Your task to perform on an android device: Open the stopwatch Image 0: 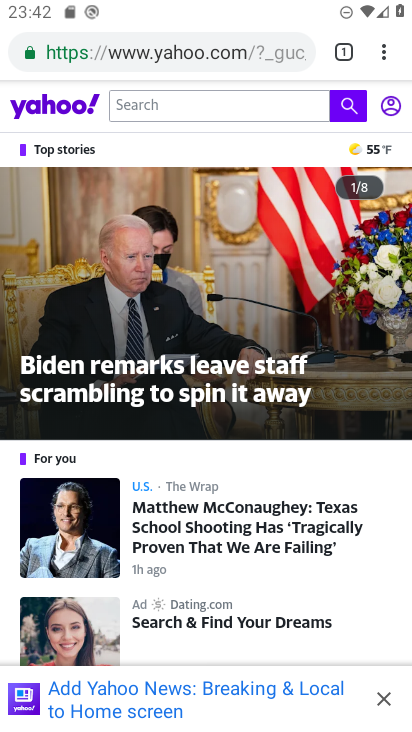
Step 0: press home button
Your task to perform on an android device: Open the stopwatch Image 1: 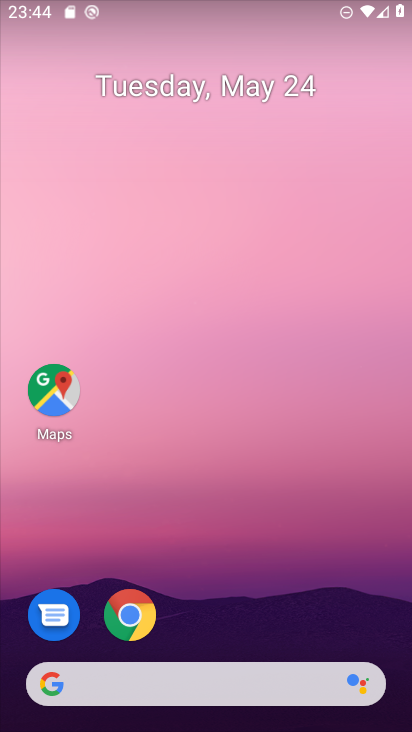
Step 1: drag from (252, 696) to (321, 65)
Your task to perform on an android device: Open the stopwatch Image 2: 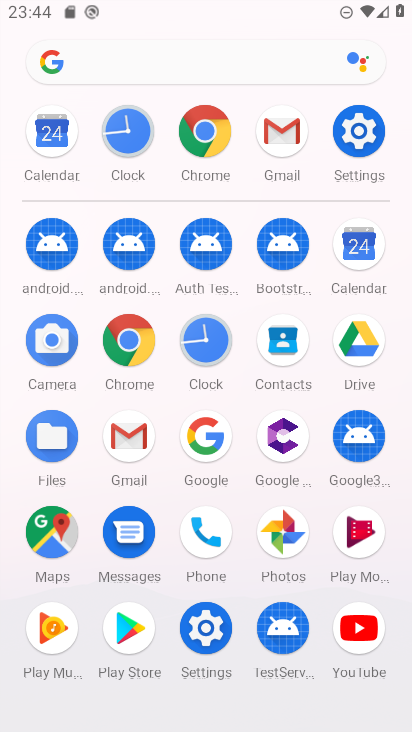
Step 2: click (201, 339)
Your task to perform on an android device: Open the stopwatch Image 3: 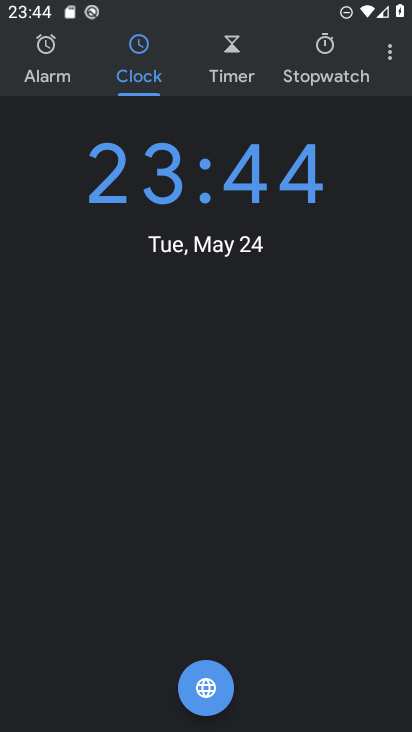
Step 3: click (326, 68)
Your task to perform on an android device: Open the stopwatch Image 4: 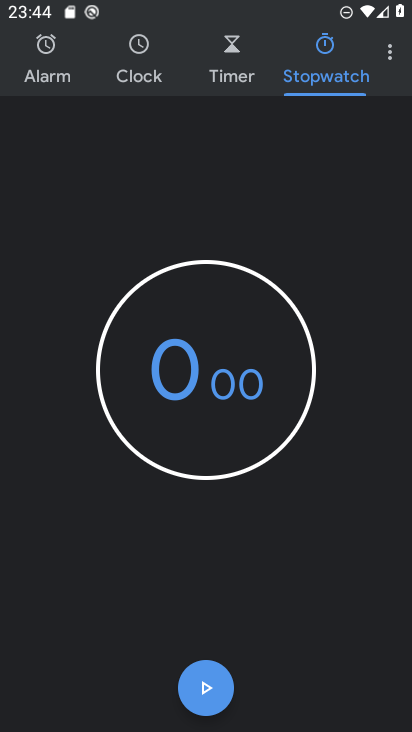
Step 4: click (206, 690)
Your task to perform on an android device: Open the stopwatch Image 5: 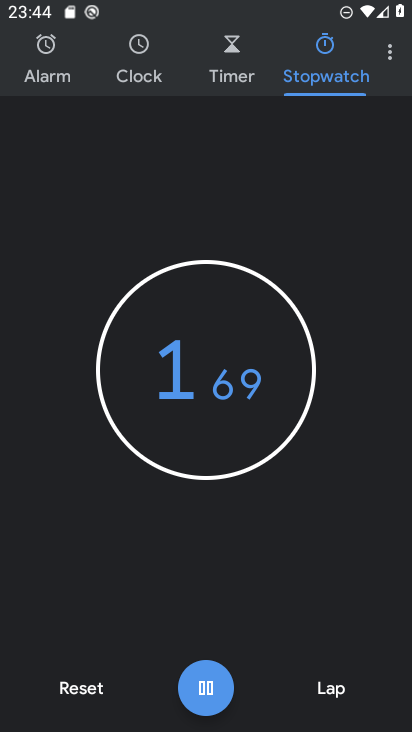
Step 5: click (203, 679)
Your task to perform on an android device: Open the stopwatch Image 6: 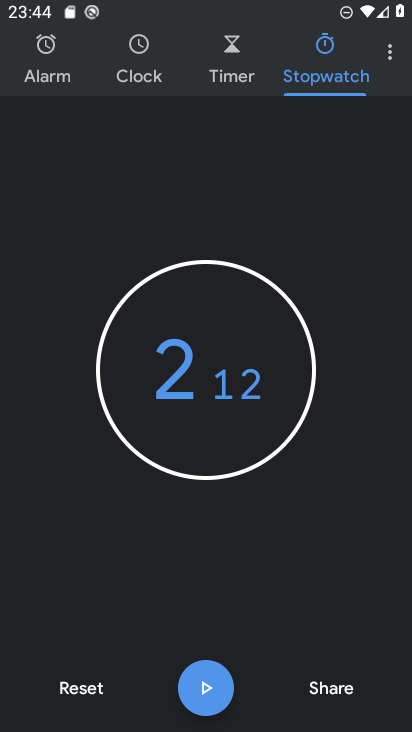
Step 6: task complete